Your task to perform on an android device: What's the weather going to be tomorrow? Image 0: 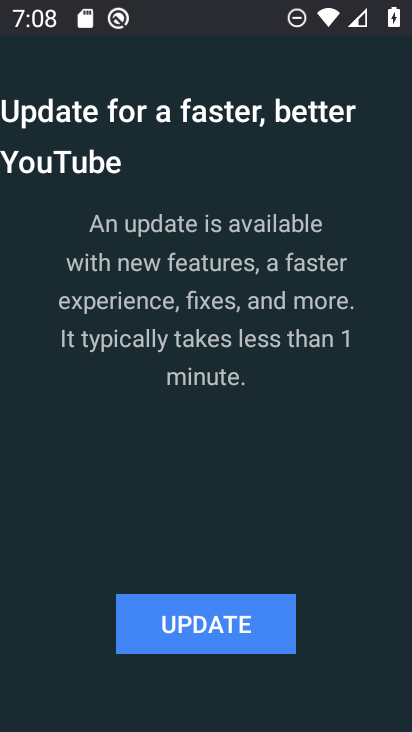
Step 0: press home button
Your task to perform on an android device: What's the weather going to be tomorrow? Image 1: 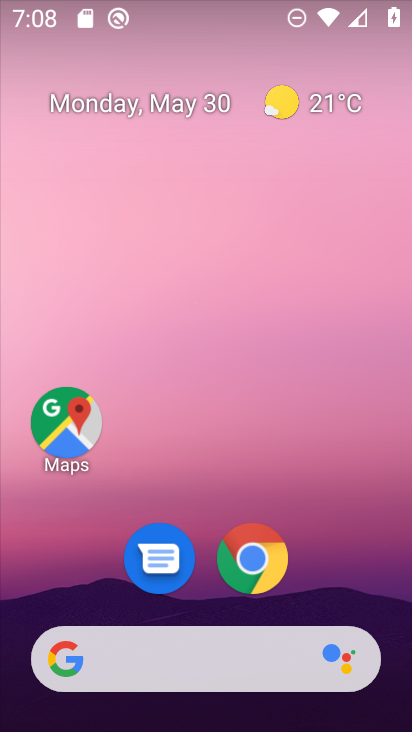
Step 1: drag from (335, 518) to (146, 0)
Your task to perform on an android device: What's the weather going to be tomorrow? Image 2: 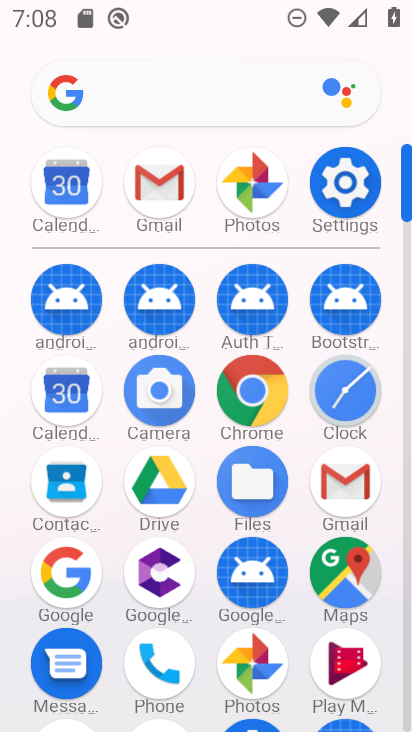
Step 2: click (166, 77)
Your task to perform on an android device: What's the weather going to be tomorrow? Image 3: 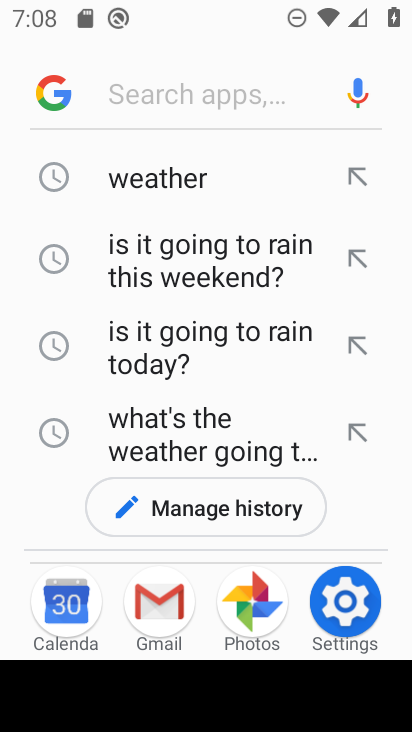
Step 3: click (172, 175)
Your task to perform on an android device: What's the weather going to be tomorrow? Image 4: 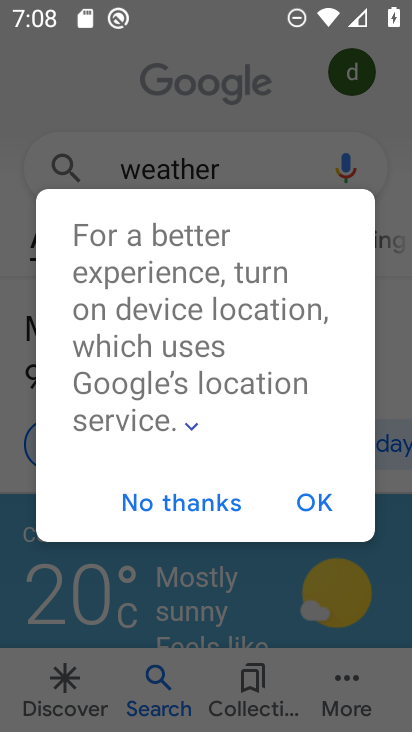
Step 4: click (311, 505)
Your task to perform on an android device: What's the weather going to be tomorrow? Image 5: 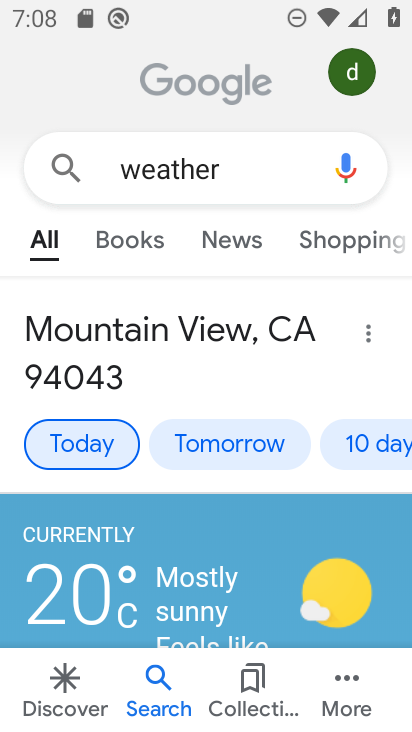
Step 5: click (251, 442)
Your task to perform on an android device: What's the weather going to be tomorrow? Image 6: 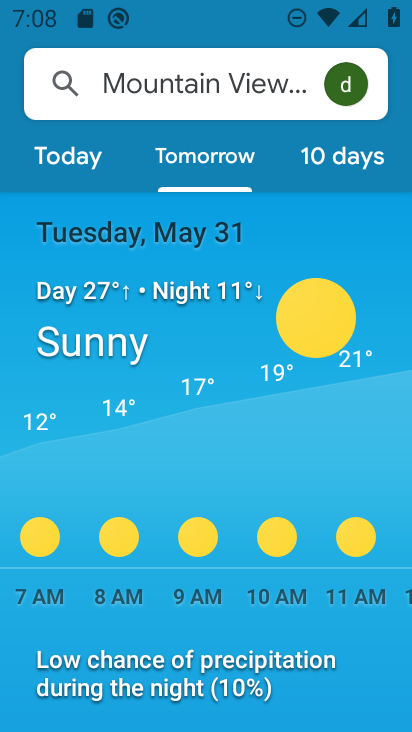
Step 6: task complete